Your task to perform on an android device: change the clock display to analog Image 0: 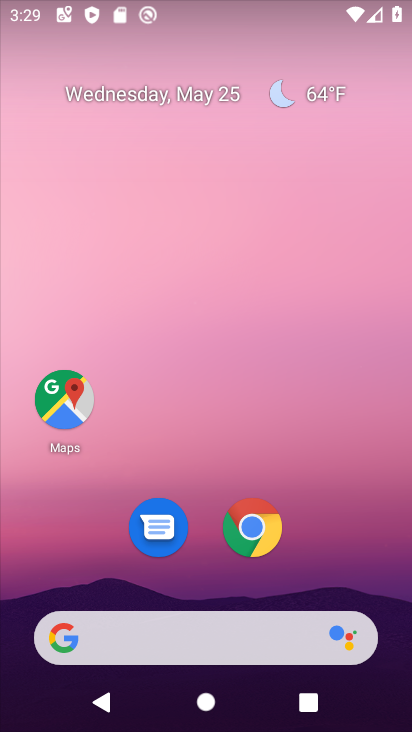
Step 0: drag from (212, 516) to (276, 55)
Your task to perform on an android device: change the clock display to analog Image 1: 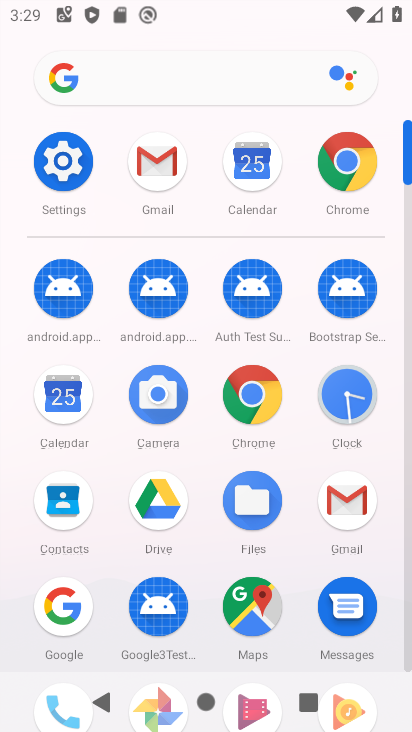
Step 1: click (347, 401)
Your task to perform on an android device: change the clock display to analog Image 2: 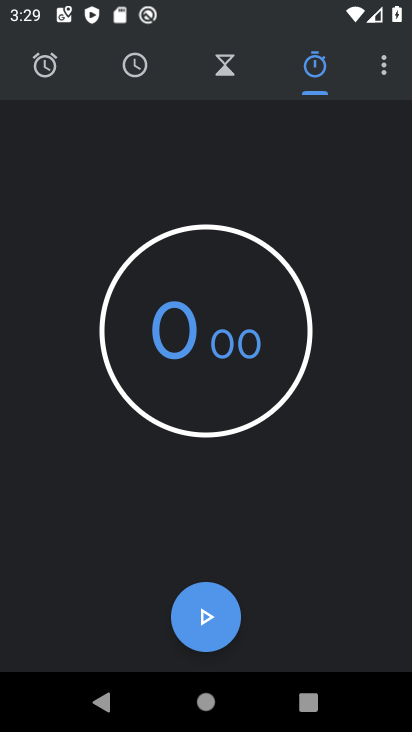
Step 2: click (377, 64)
Your task to perform on an android device: change the clock display to analog Image 3: 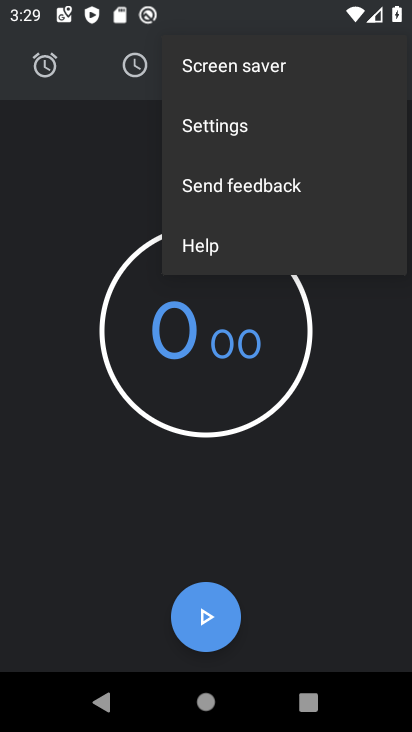
Step 3: click (218, 123)
Your task to perform on an android device: change the clock display to analog Image 4: 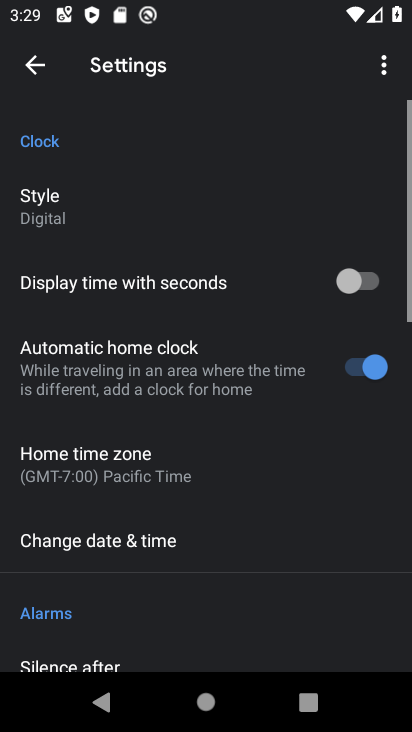
Step 4: click (82, 204)
Your task to perform on an android device: change the clock display to analog Image 5: 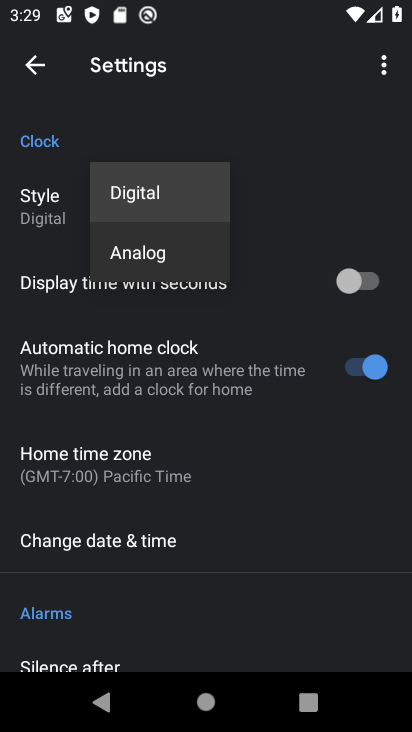
Step 5: click (143, 244)
Your task to perform on an android device: change the clock display to analog Image 6: 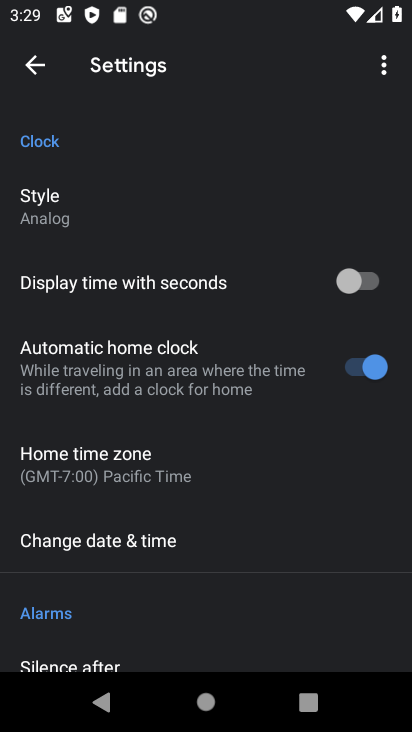
Step 6: task complete